Your task to perform on an android device: Show me productivity apps on the Play Store Image 0: 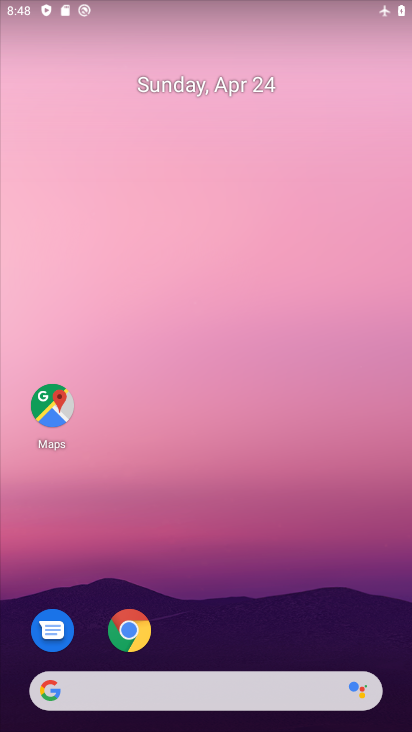
Step 0: drag from (188, 637) to (189, 186)
Your task to perform on an android device: Show me productivity apps on the Play Store Image 1: 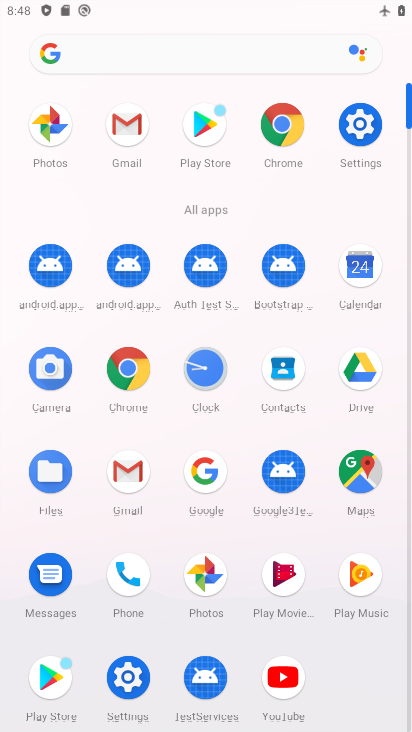
Step 1: click (57, 674)
Your task to perform on an android device: Show me productivity apps on the Play Store Image 2: 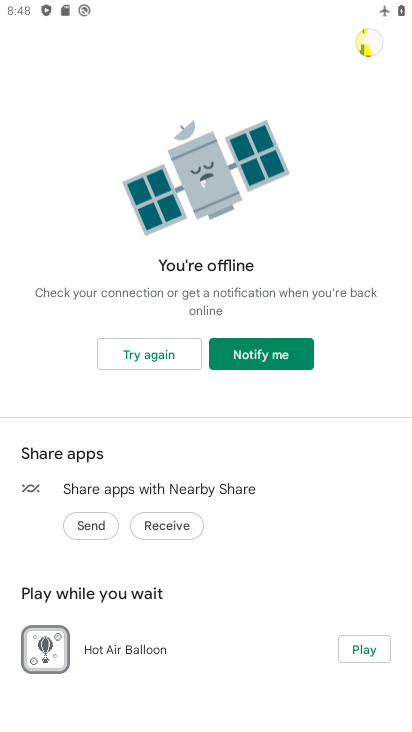
Step 2: task complete